Your task to perform on an android device: Open Yahoo.com Image 0: 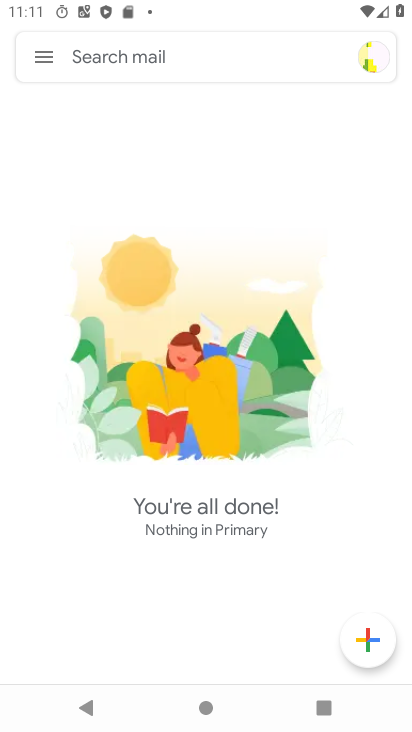
Step 0: press home button
Your task to perform on an android device: Open Yahoo.com Image 1: 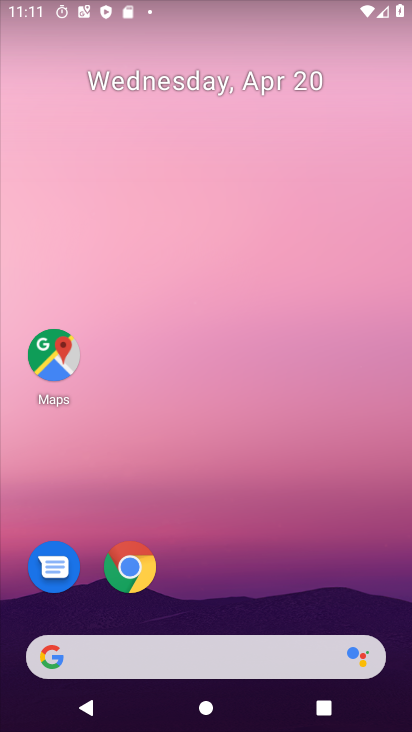
Step 1: click (141, 567)
Your task to perform on an android device: Open Yahoo.com Image 2: 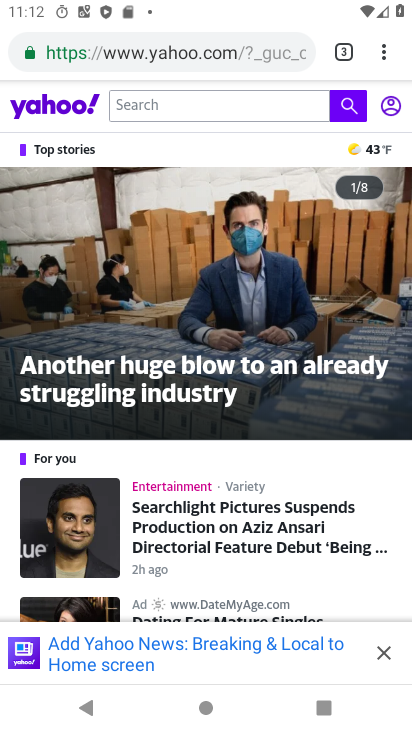
Step 2: task complete